Your task to perform on an android device: Search for seafood restaurants on Google Maps Image 0: 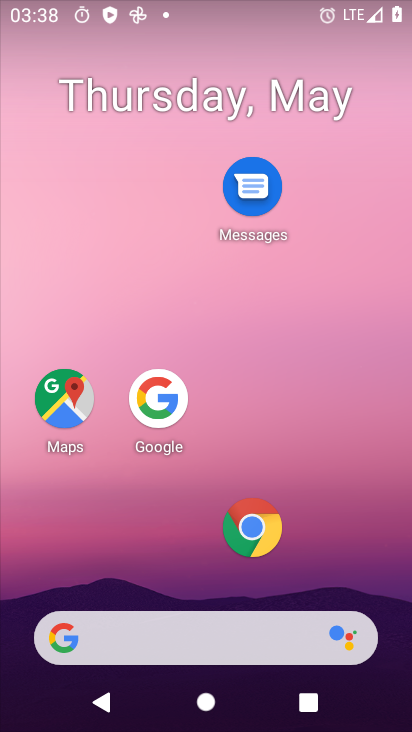
Step 0: drag from (182, 499) to (172, 179)
Your task to perform on an android device: Search for seafood restaurants on Google Maps Image 1: 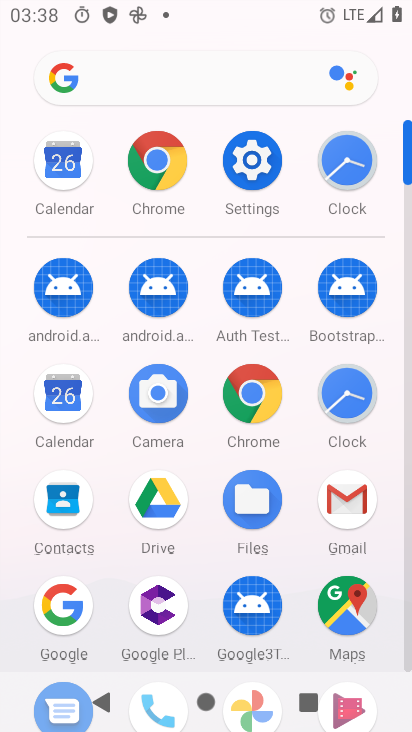
Step 1: click (349, 602)
Your task to perform on an android device: Search for seafood restaurants on Google Maps Image 2: 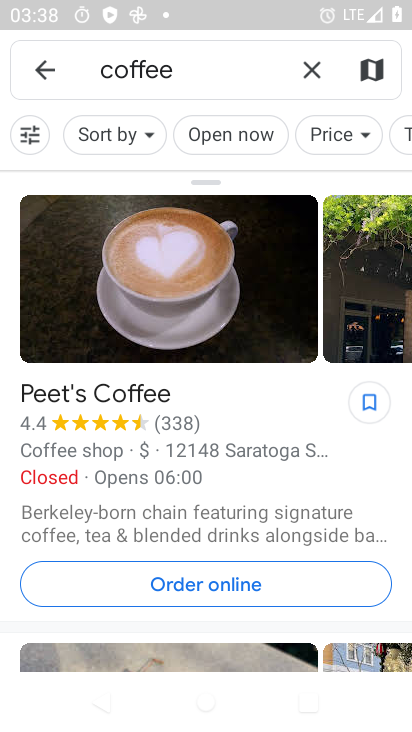
Step 2: click (317, 79)
Your task to perform on an android device: Search for seafood restaurants on Google Maps Image 3: 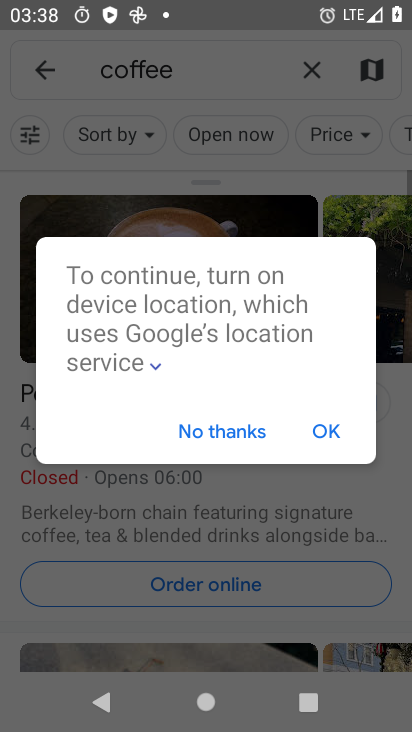
Step 3: click (327, 430)
Your task to perform on an android device: Search for seafood restaurants on Google Maps Image 4: 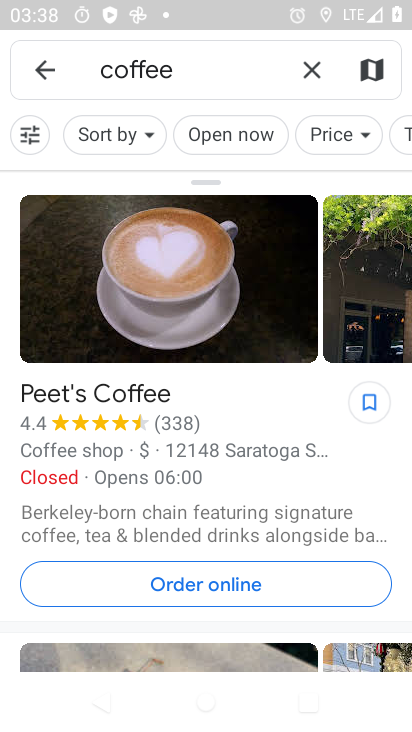
Step 4: click (312, 80)
Your task to perform on an android device: Search for seafood restaurants on Google Maps Image 5: 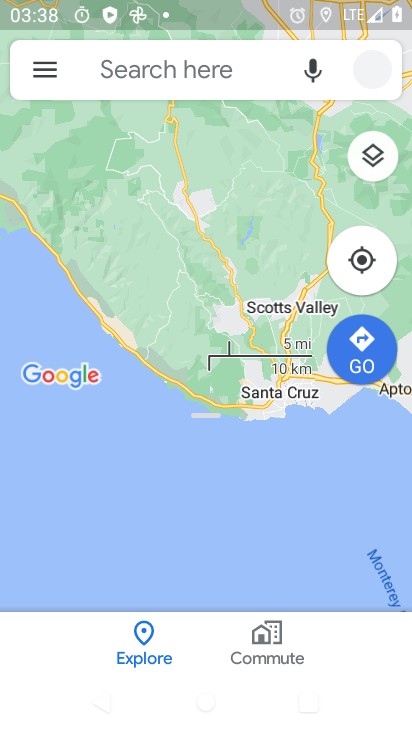
Step 5: click (226, 82)
Your task to perform on an android device: Search for seafood restaurants on Google Maps Image 6: 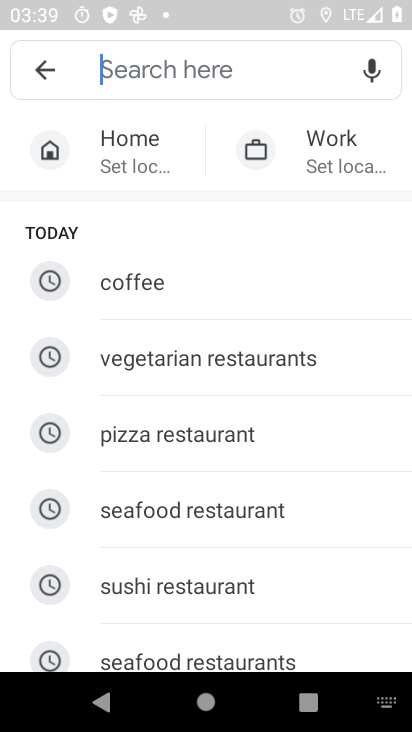
Step 6: click (148, 517)
Your task to perform on an android device: Search for seafood restaurants on Google Maps Image 7: 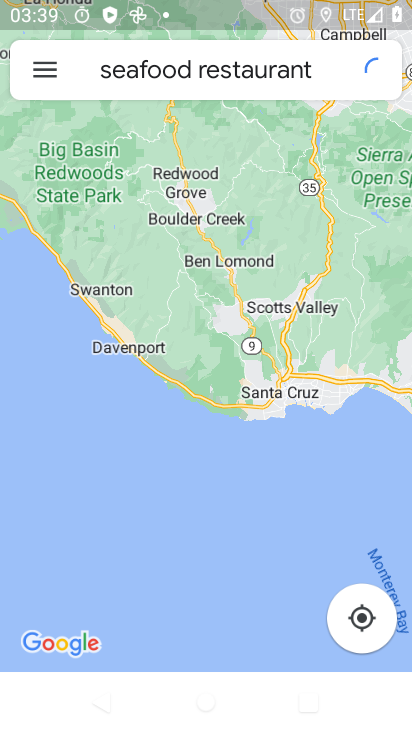
Step 7: task complete